Your task to perform on an android device: turn on showing notifications on the lock screen Image 0: 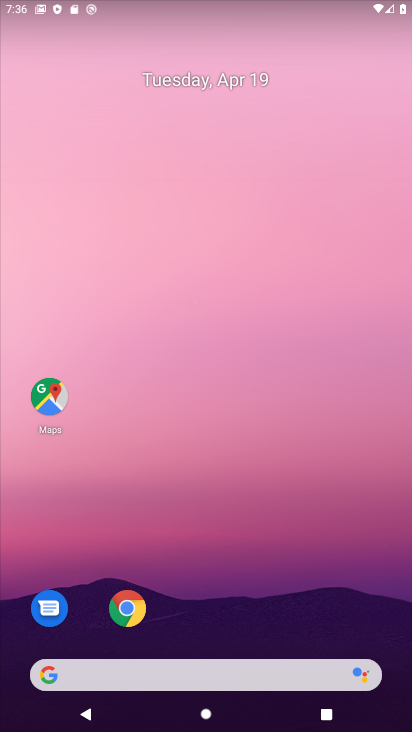
Step 0: drag from (347, 607) to (362, 34)
Your task to perform on an android device: turn on showing notifications on the lock screen Image 1: 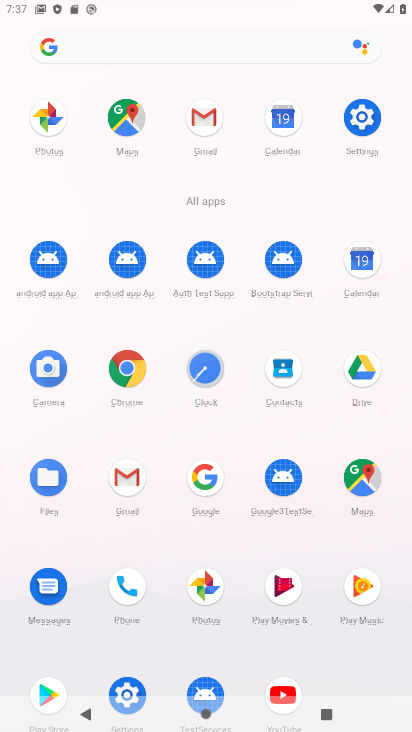
Step 1: click (362, 150)
Your task to perform on an android device: turn on showing notifications on the lock screen Image 2: 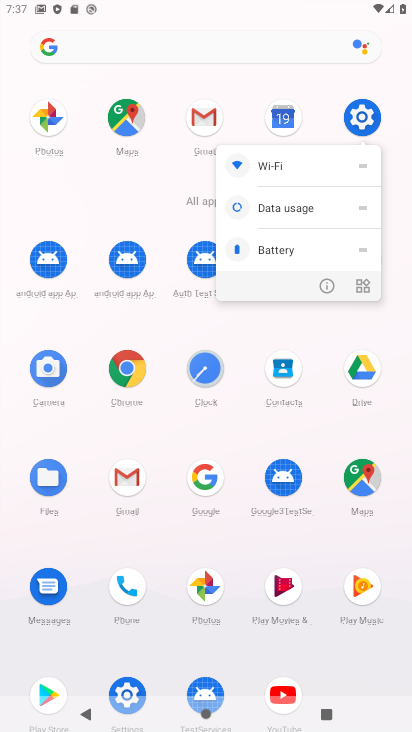
Step 2: click (359, 119)
Your task to perform on an android device: turn on showing notifications on the lock screen Image 3: 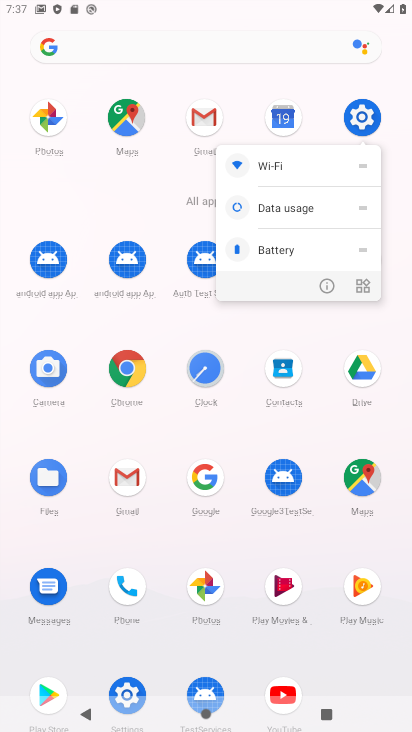
Step 3: click (359, 119)
Your task to perform on an android device: turn on showing notifications on the lock screen Image 4: 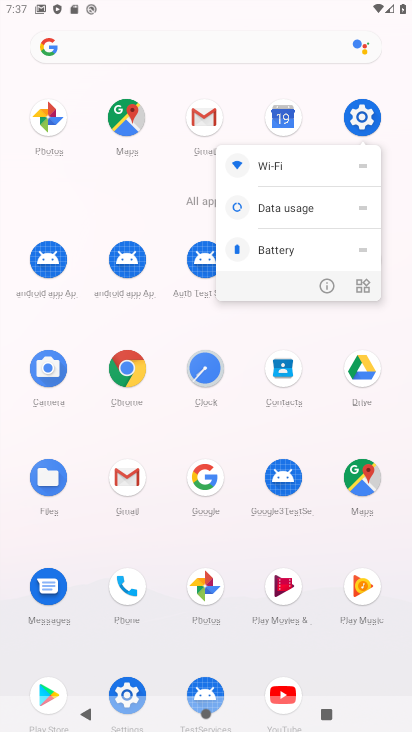
Step 4: click (359, 119)
Your task to perform on an android device: turn on showing notifications on the lock screen Image 5: 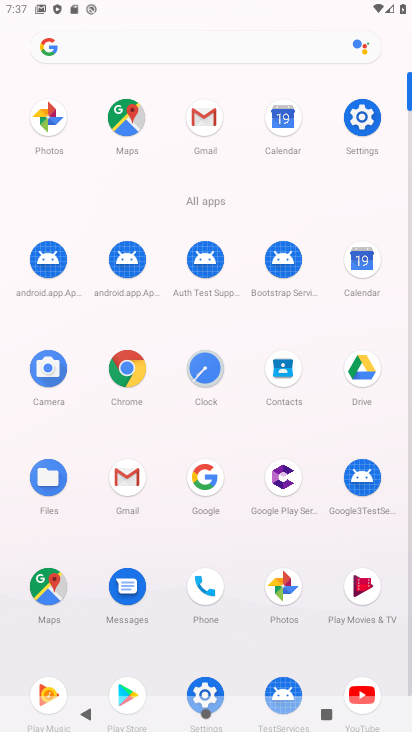
Step 5: click (358, 117)
Your task to perform on an android device: turn on showing notifications on the lock screen Image 6: 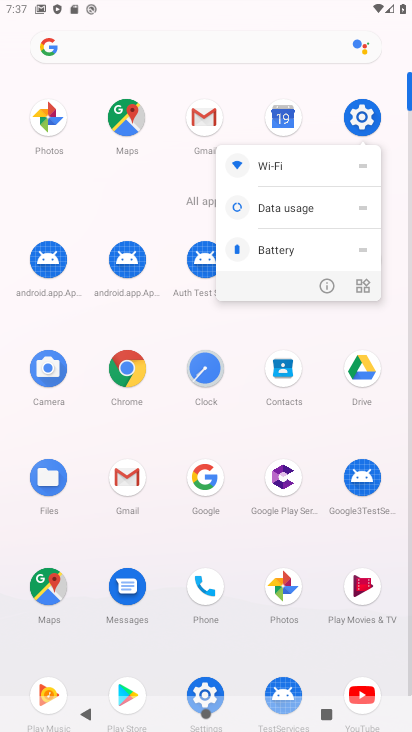
Step 6: click (358, 117)
Your task to perform on an android device: turn on showing notifications on the lock screen Image 7: 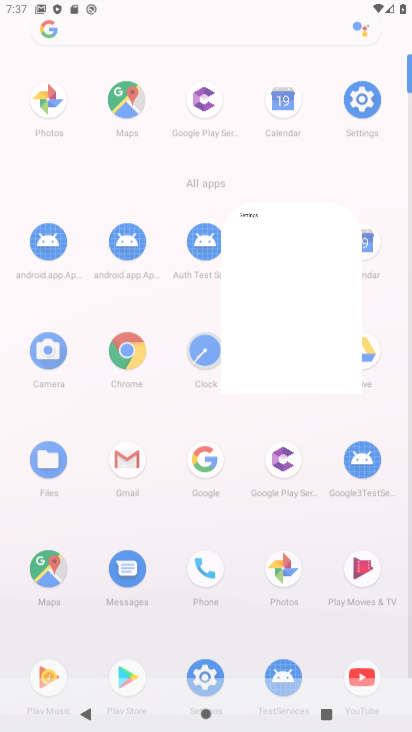
Step 7: drag from (358, 117) to (396, 117)
Your task to perform on an android device: turn on showing notifications on the lock screen Image 8: 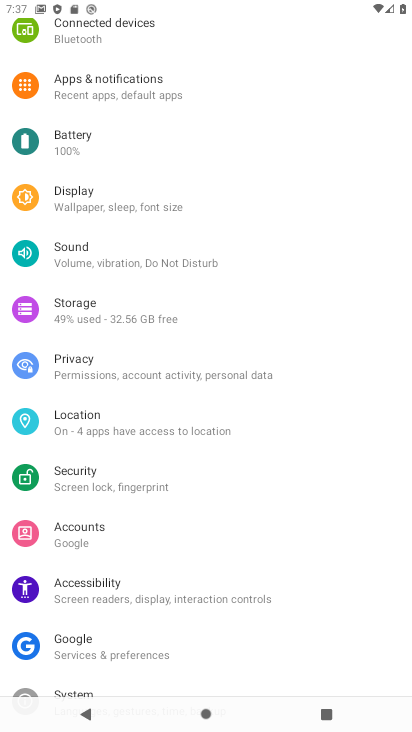
Step 8: click (238, 89)
Your task to perform on an android device: turn on showing notifications on the lock screen Image 9: 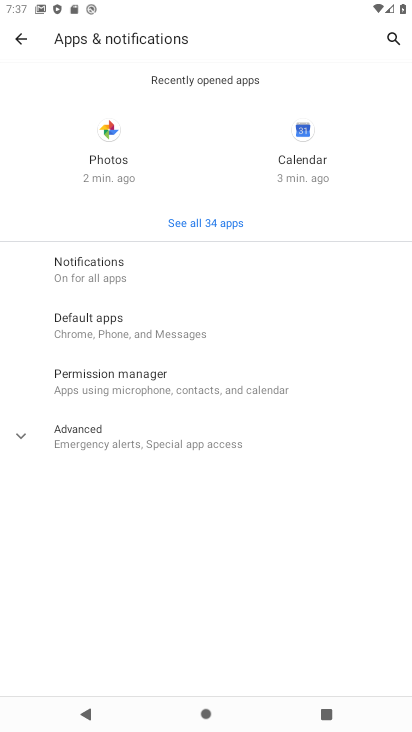
Step 9: click (204, 272)
Your task to perform on an android device: turn on showing notifications on the lock screen Image 10: 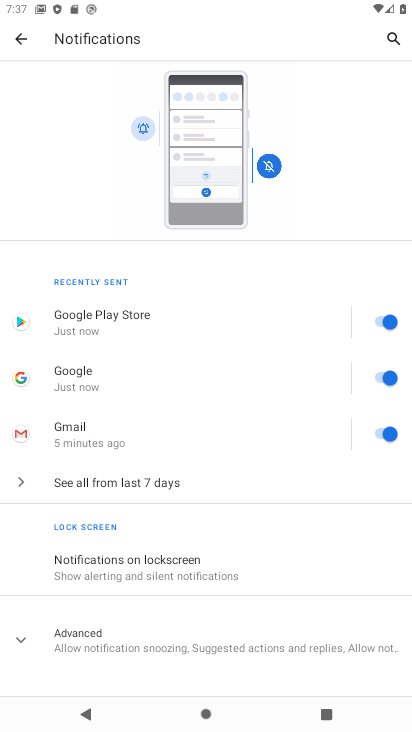
Step 10: click (247, 546)
Your task to perform on an android device: turn on showing notifications on the lock screen Image 11: 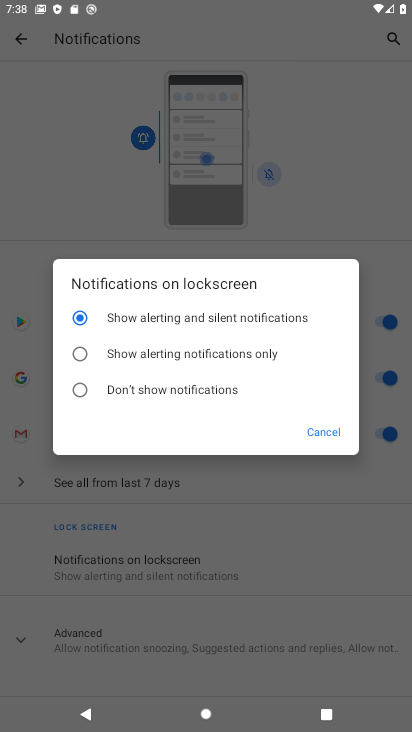
Step 11: click (203, 348)
Your task to perform on an android device: turn on showing notifications on the lock screen Image 12: 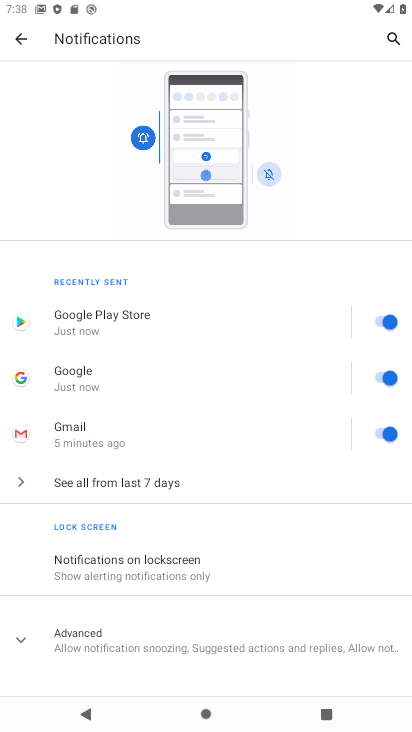
Step 12: task complete